Your task to perform on an android device: Add acer predator to the cart on ebay.com, then select checkout. Image 0: 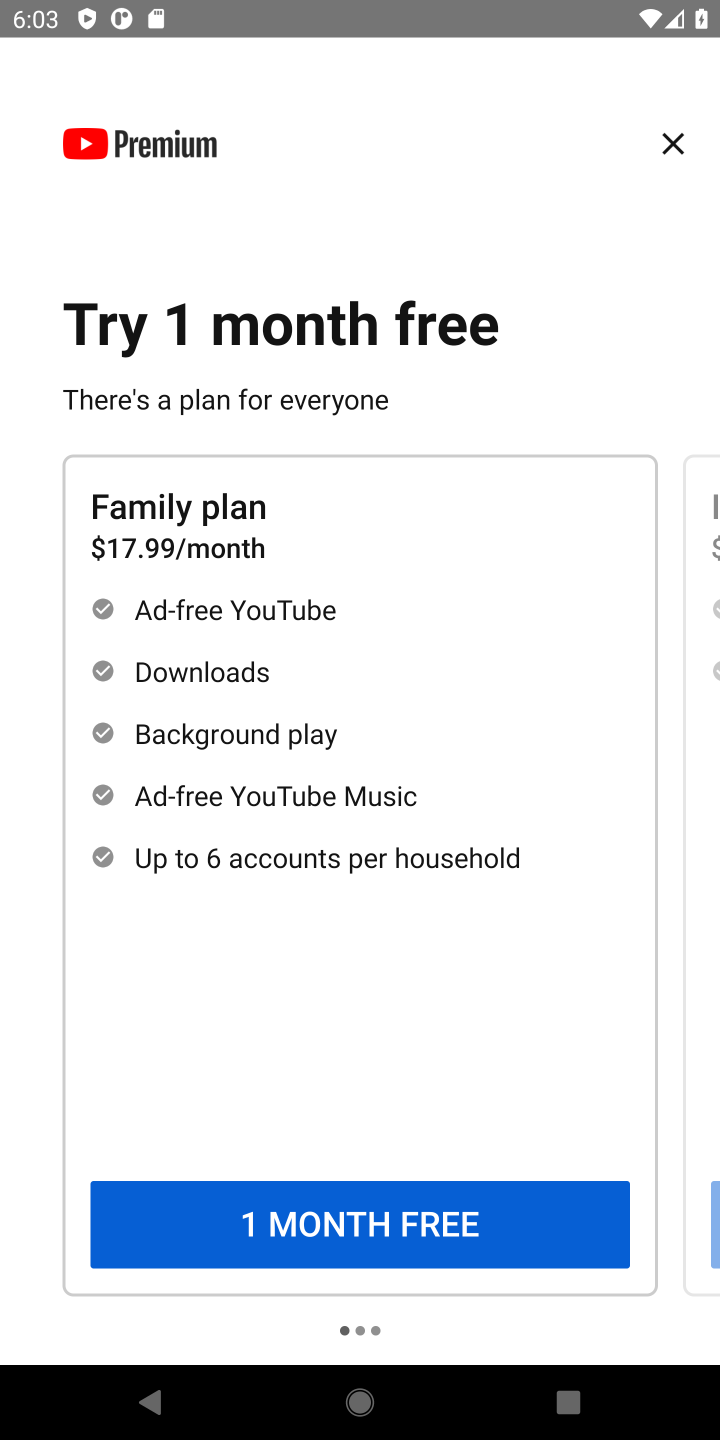
Step 0: press home button
Your task to perform on an android device: Add acer predator to the cart on ebay.com, then select checkout. Image 1: 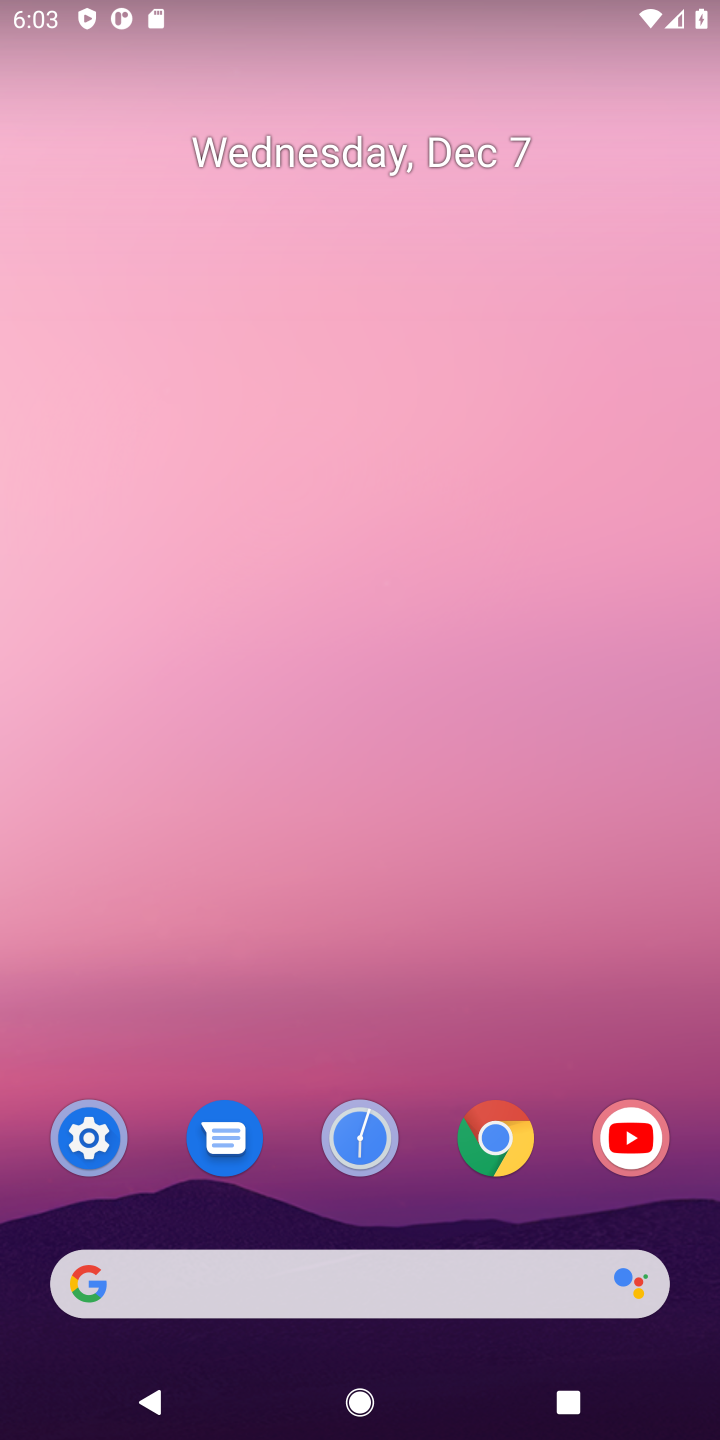
Step 1: click (171, 1277)
Your task to perform on an android device: Add acer predator to the cart on ebay.com, then select checkout. Image 2: 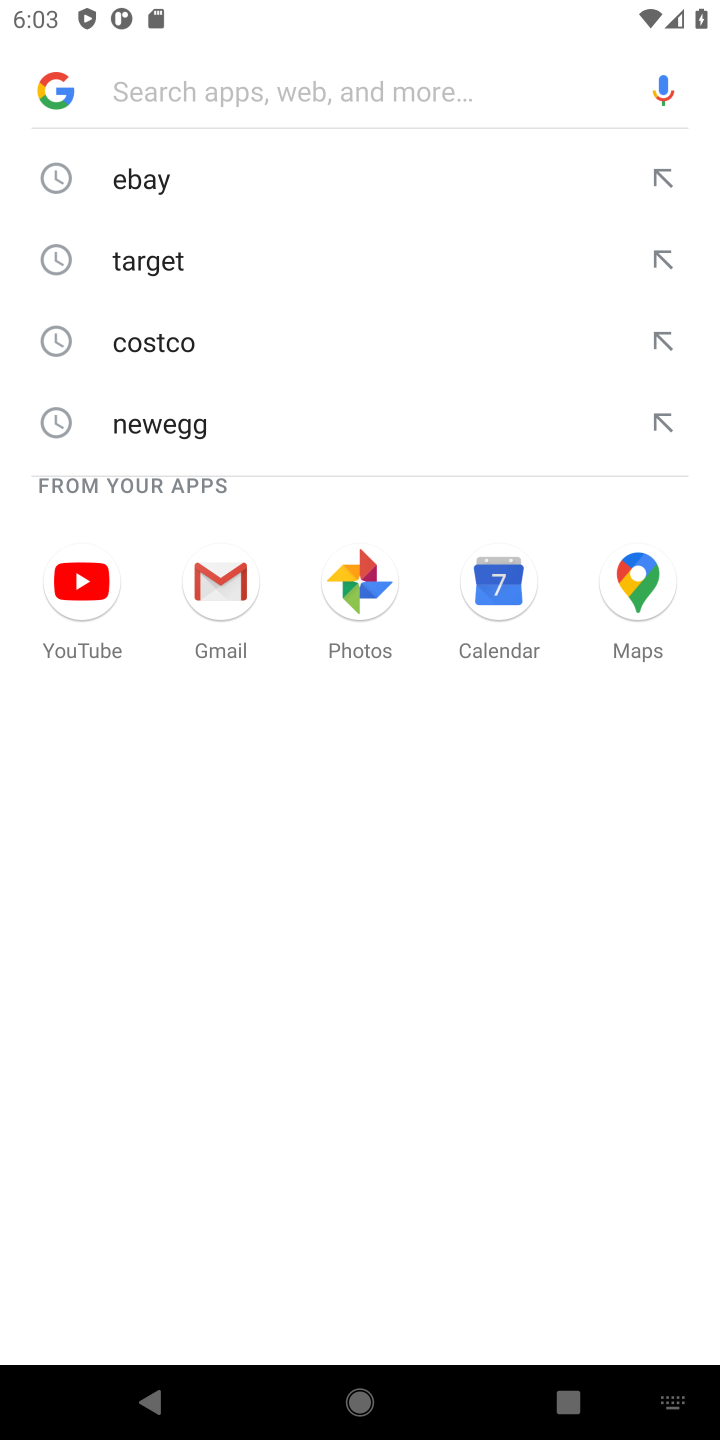
Step 2: press enter
Your task to perform on an android device: Add acer predator to the cart on ebay.com, then select checkout. Image 3: 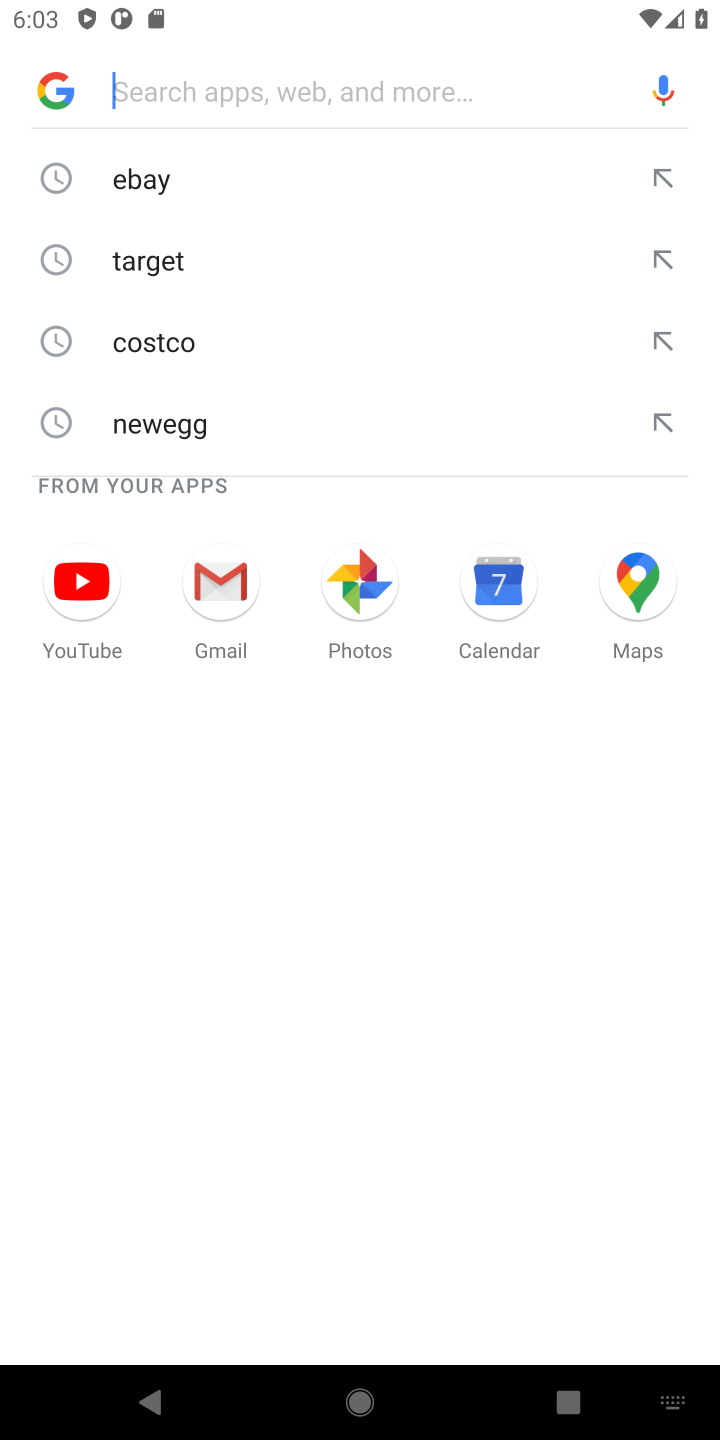
Step 3: type "ebay.com"
Your task to perform on an android device: Add acer predator to the cart on ebay.com, then select checkout. Image 4: 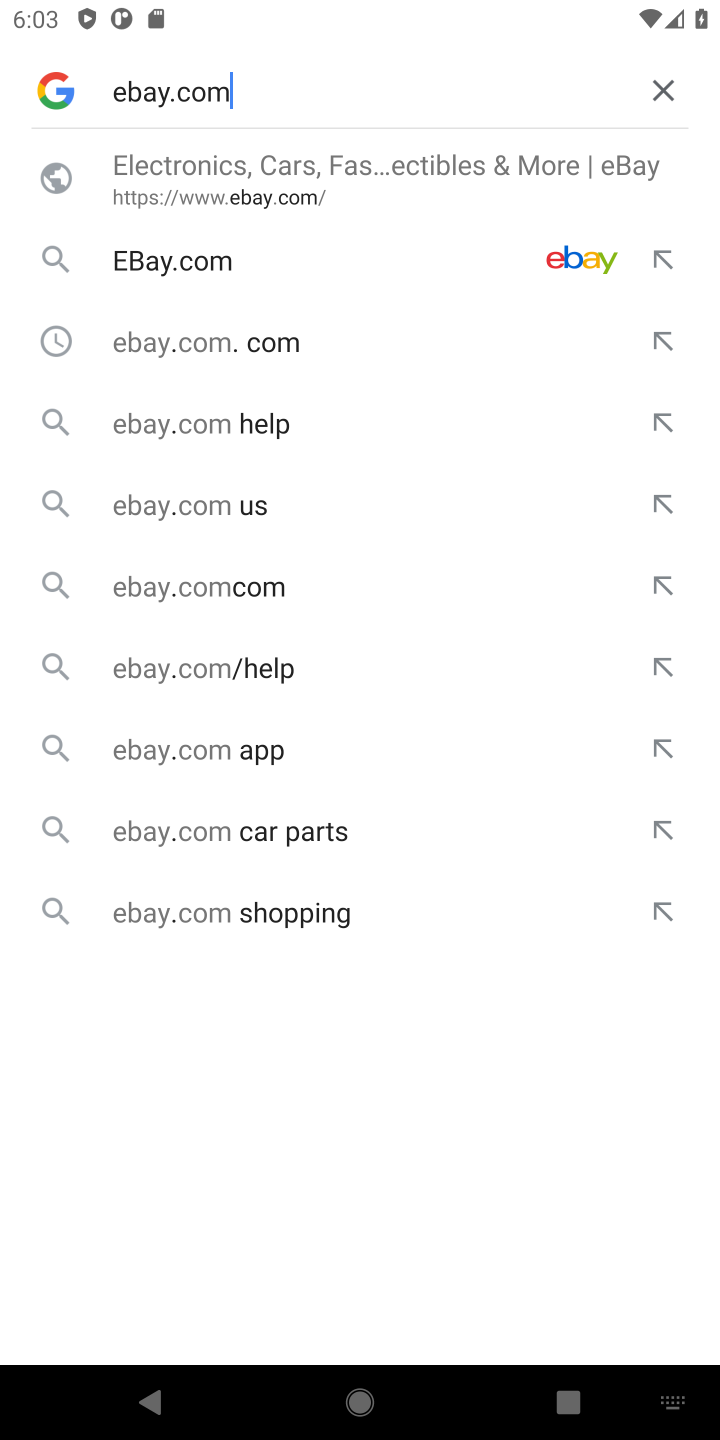
Step 4: press enter
Your task to perform on an android device: Add acer predator to the cart on ebay.com, then select checkout. Image 5: 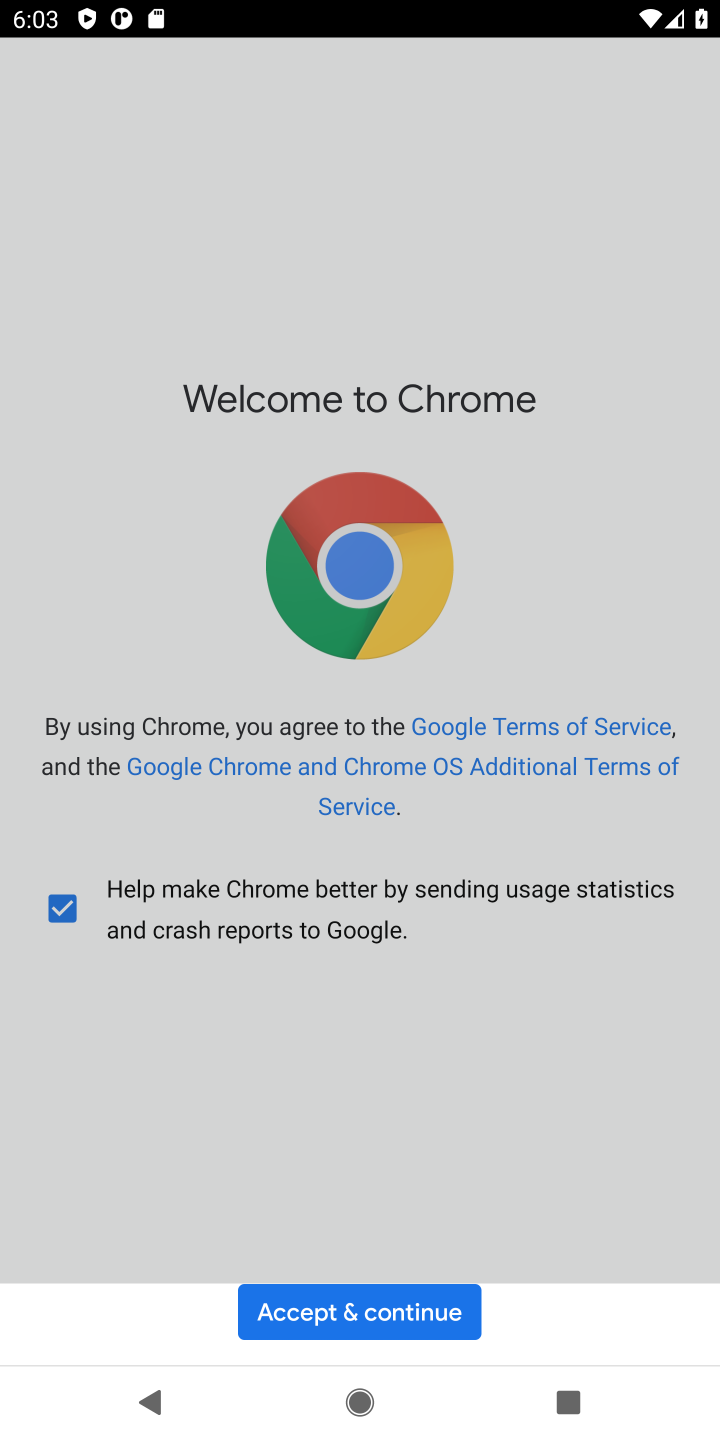
Step 5: click (320, 1311)
Your task to perform on an android device: Add acer predator to the cart on ebay.com, then select checkout. Image 6: 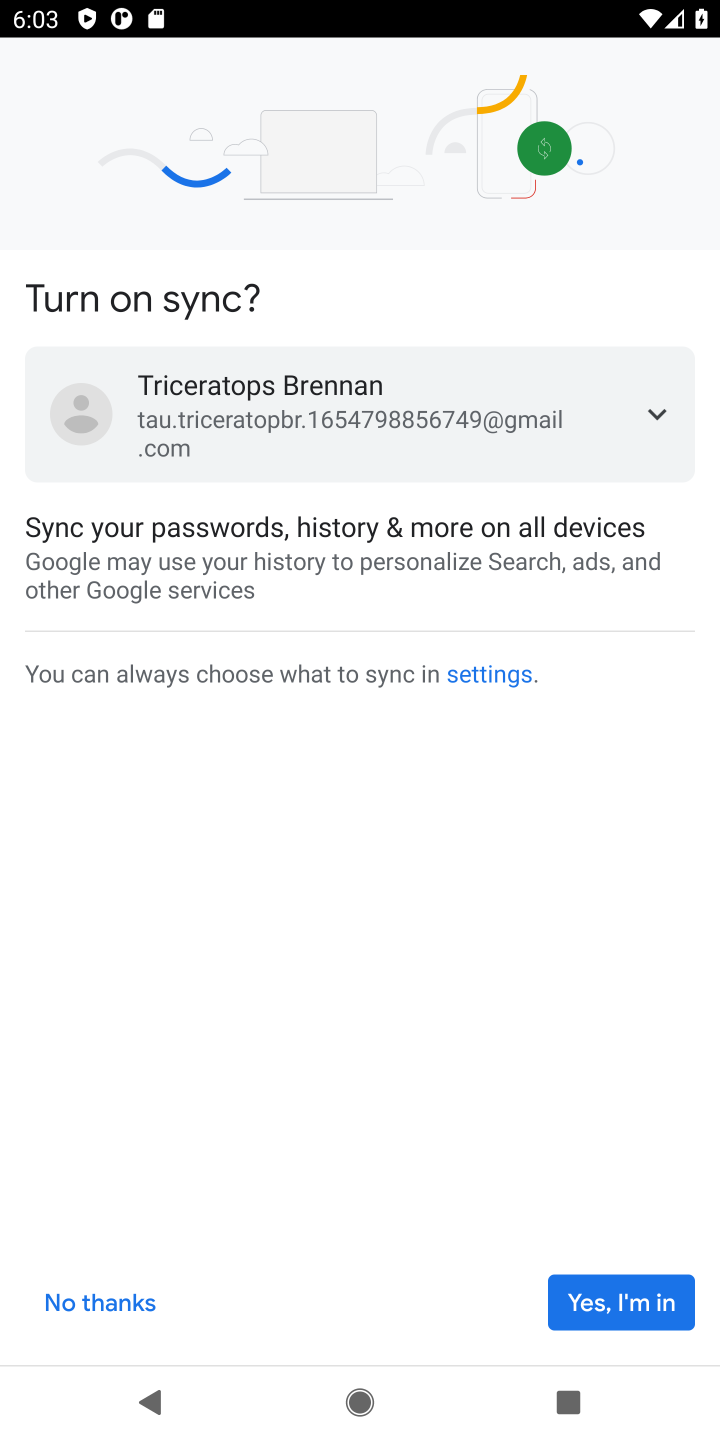
Step 6: click (621, 1295)
Your task to perform on an android device: Add acer predator to the cart on ebay.com, then select checkout. Image 7: 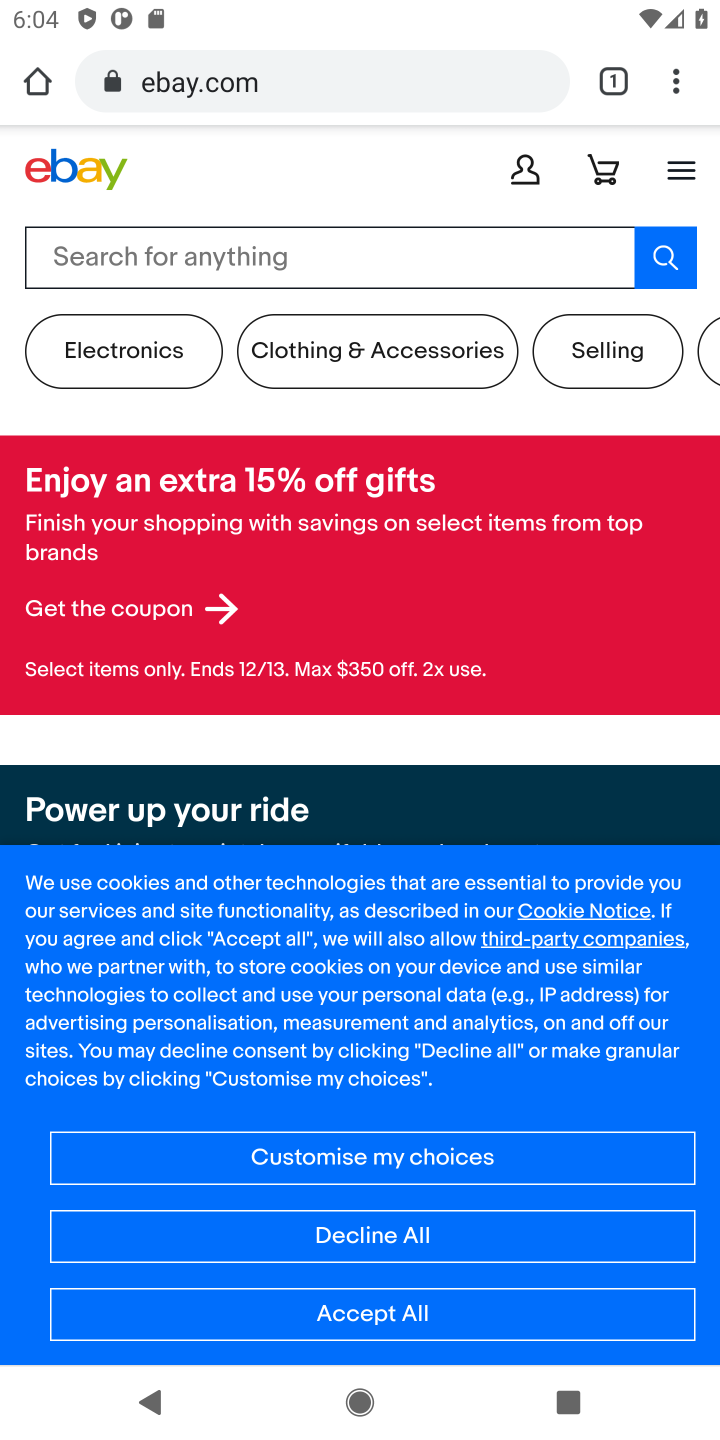
Step 7: click (239, 244)
Your task to perform on an android device: Add acer predator to the cart on ebay.com, then select checkout. Image 8: 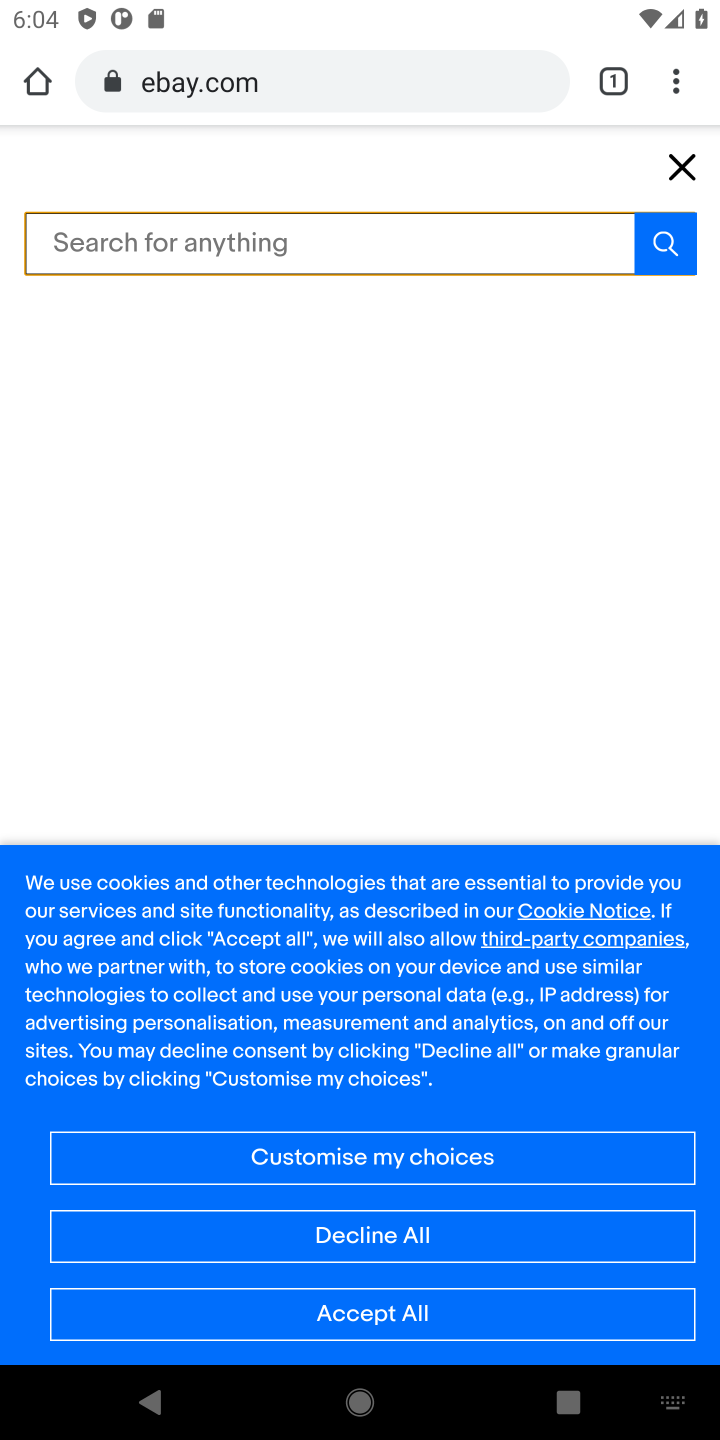
Step 8: type "acer predator"
Your task to perform on an android device: Add acer predator to the cart on ebay.com, then select checkout. Image 9: 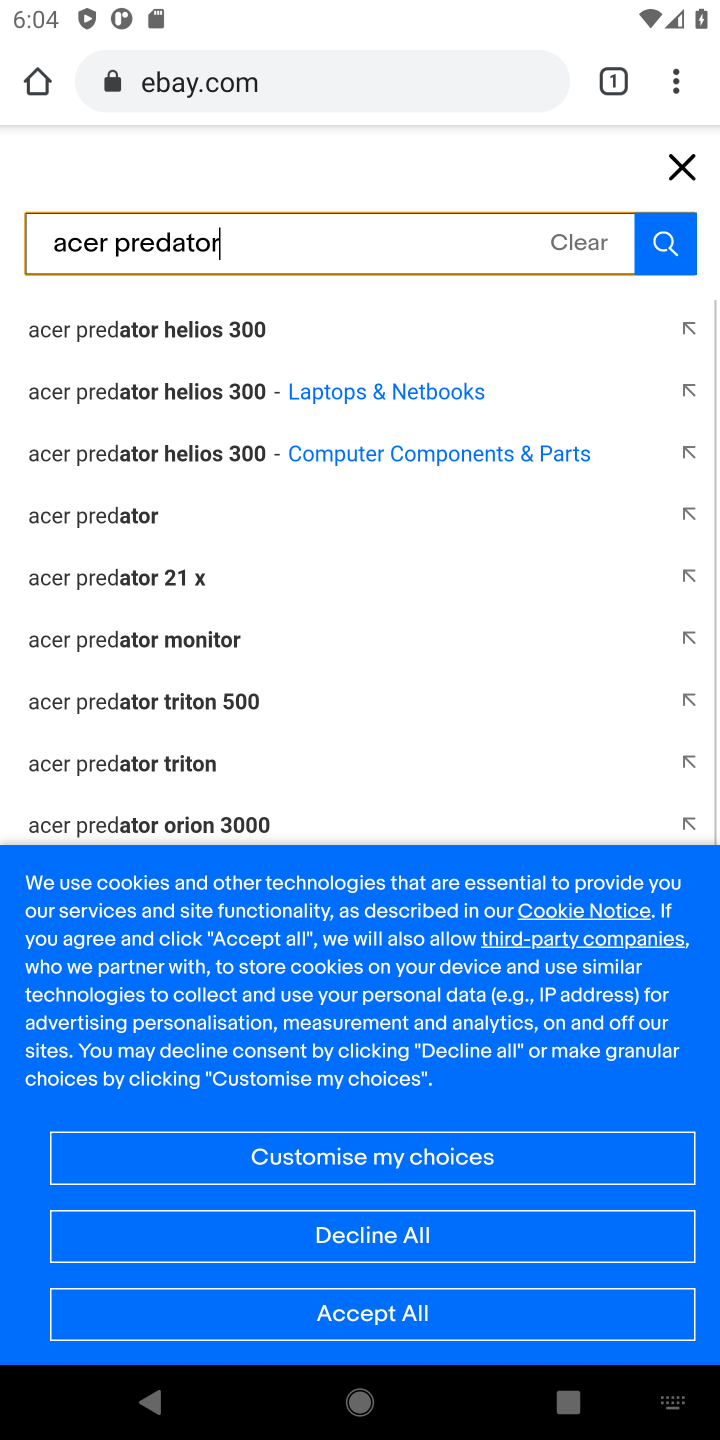
Step 9: press enter
Your task to perform on an android device: Add acer predator to the cart on ebay.com, then select checkout. Image 10: 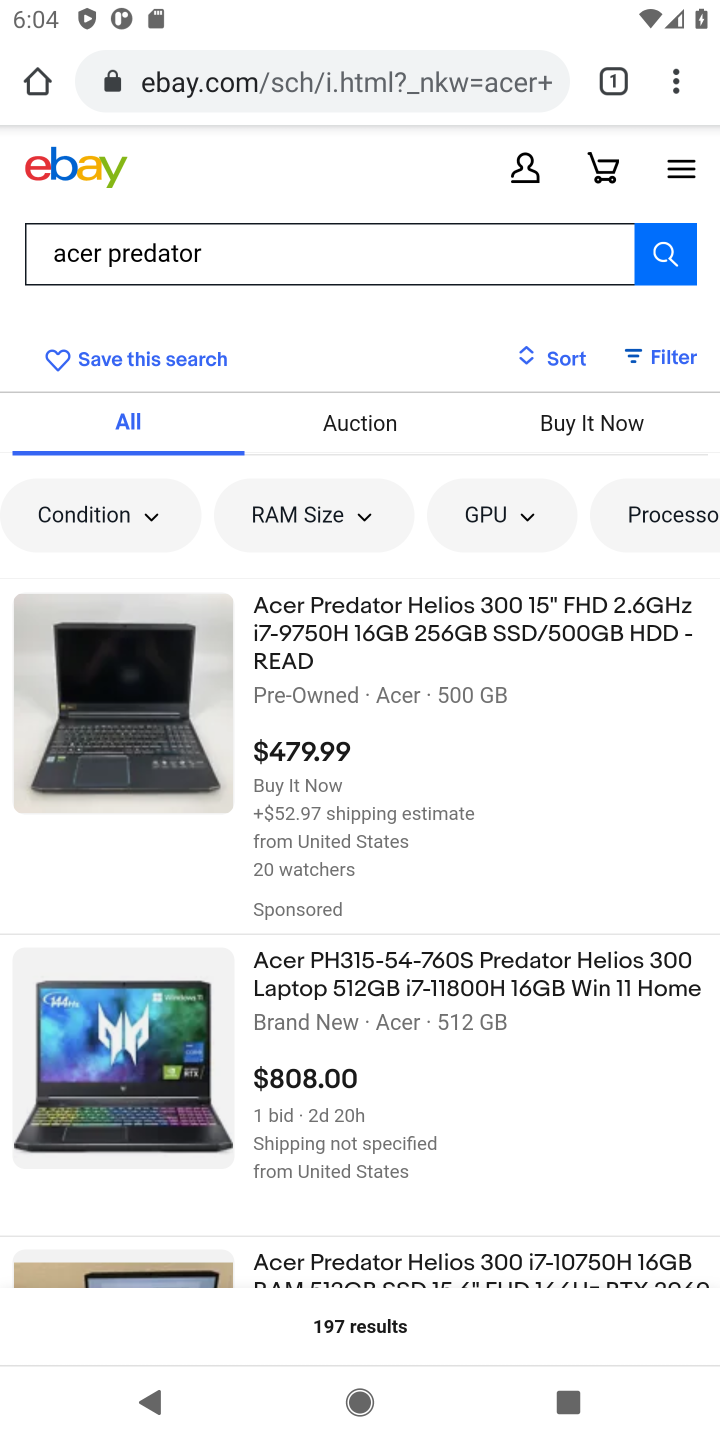
Step 10: click (407, 646)
Your task to perform on an android device: Add acer predator to the cart on ebay.com, then select checkout. Image 11: 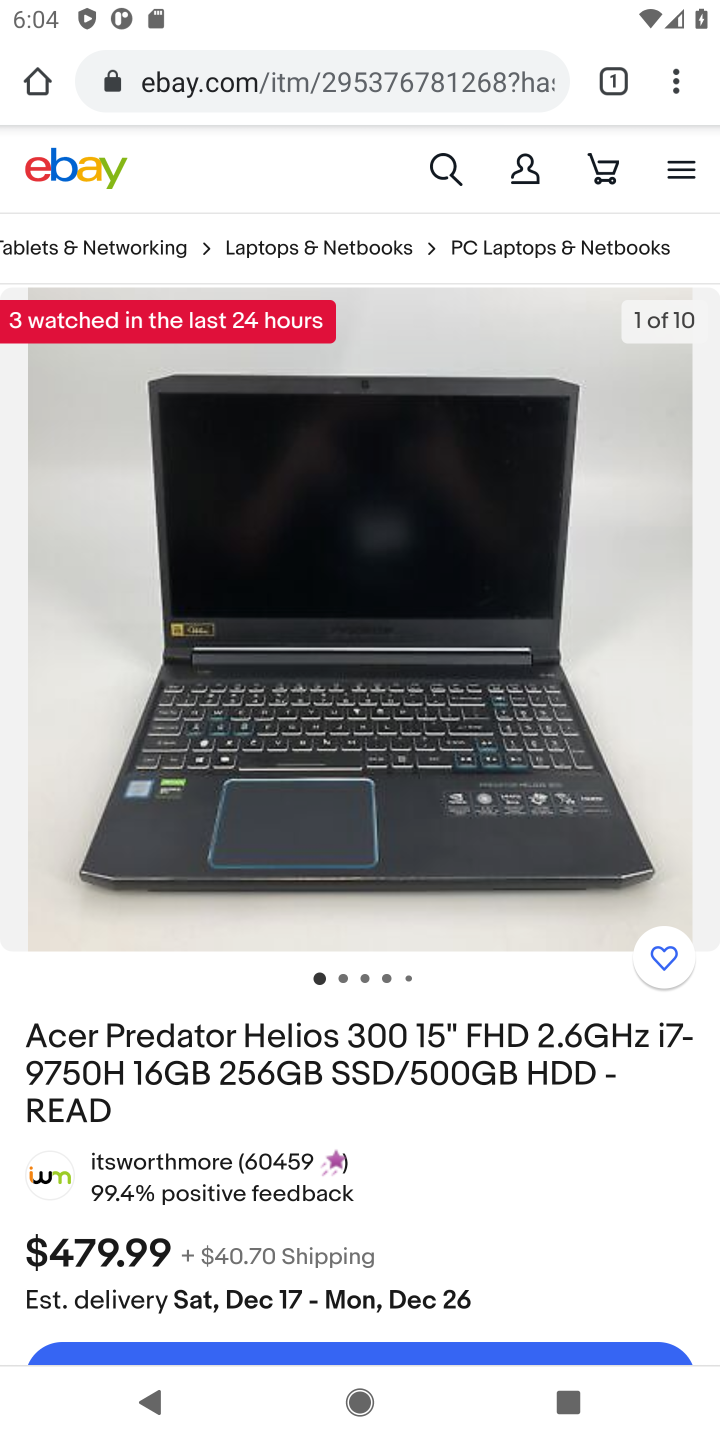
Step 11: drag from (546, 1177) to (526, 717)
Your task to perform on an android device: Add acer predator to the cart on ebay.com, then select checkout. Image 12: 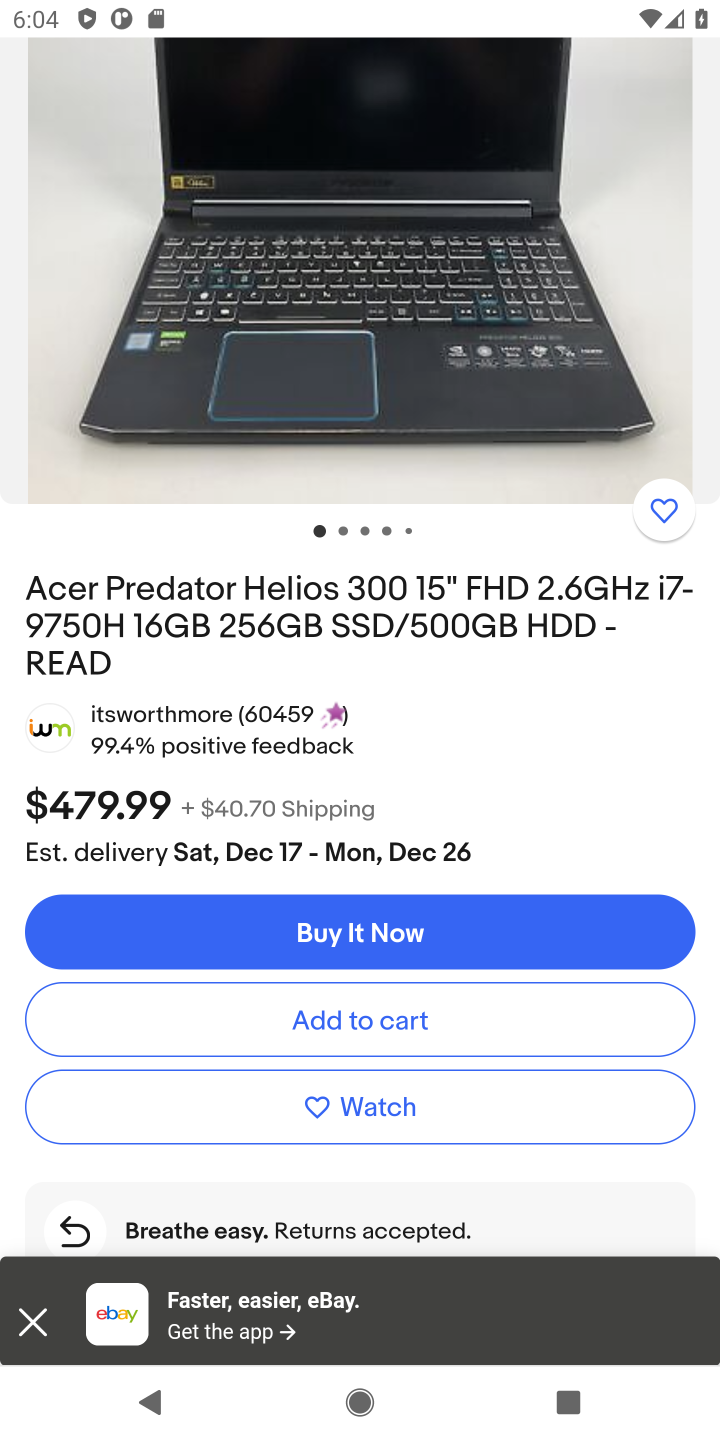
Step 12: drag from (580, 1185) to (548, 634)
Your task to perform on an android device: Add acer predator to the cart on ebay.com, then select checkout. Image 13: 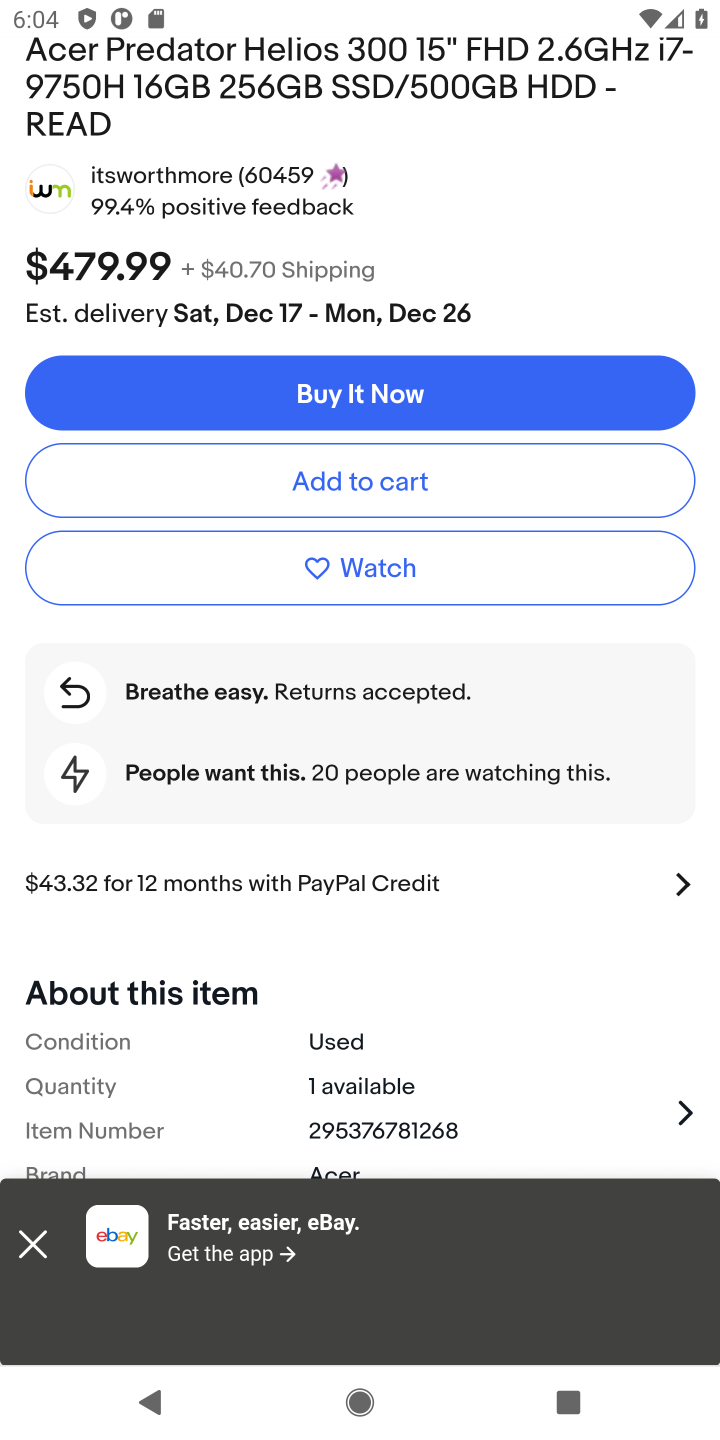
Step 13: click (374, 477)
Your task to perform on an android device: Add acer predator to the cart on ebay.com, then select checkout. Image 14: 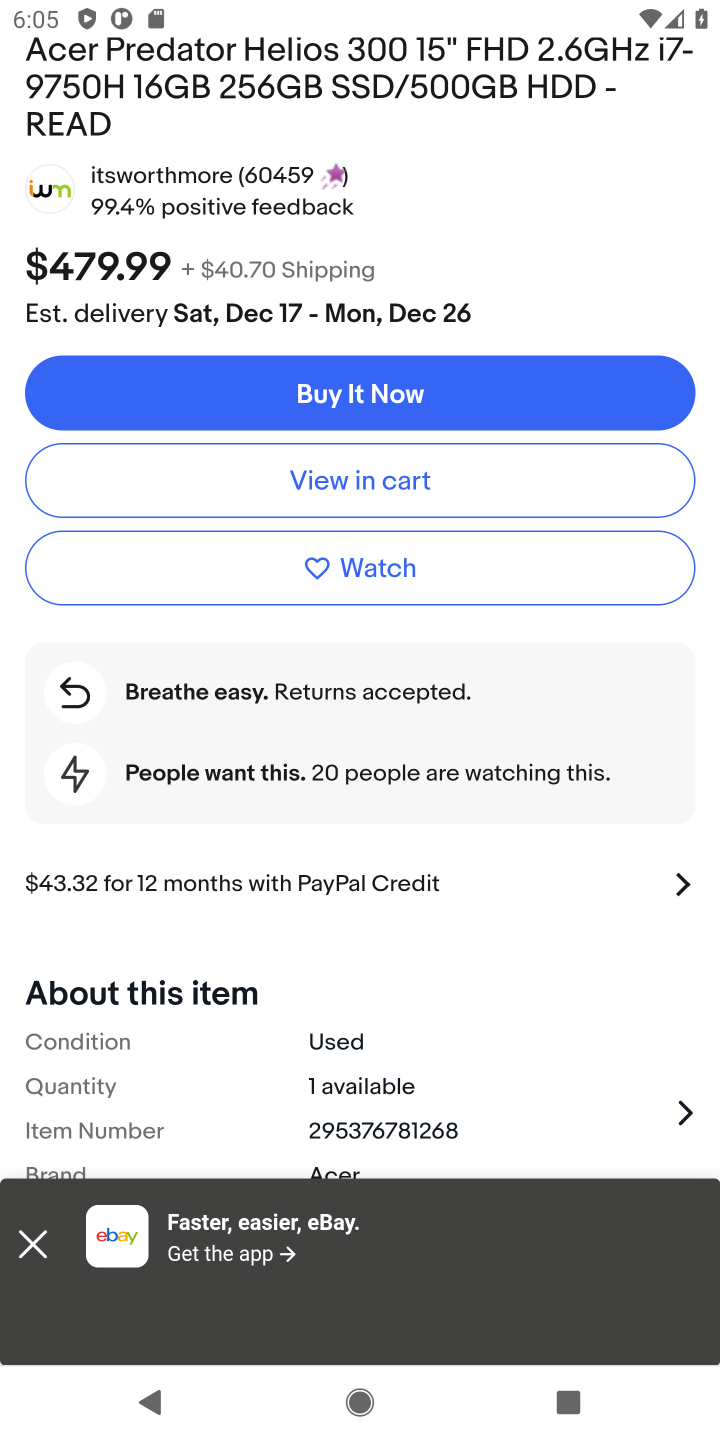
Step 14: task complete